Your task to perform on an android device: Search for seafood restaurants on Google Maps Image 0: 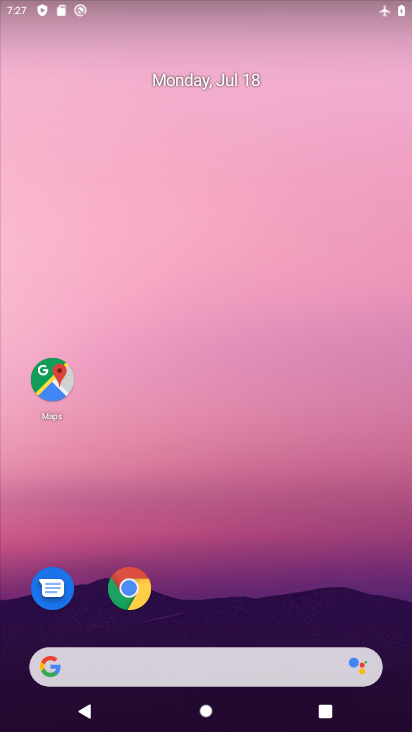
Step 0: click (46, 377)
Your task to perform on an android device: Search for seafood restaurants on Google Maps Image 1: 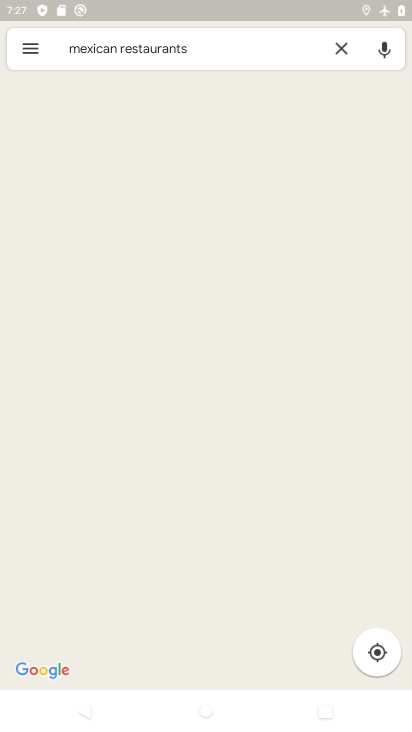
Step 1: click (340, 43)
Your task to perform on an android device: Search for seafood restaurants on Google Maps Image 2: 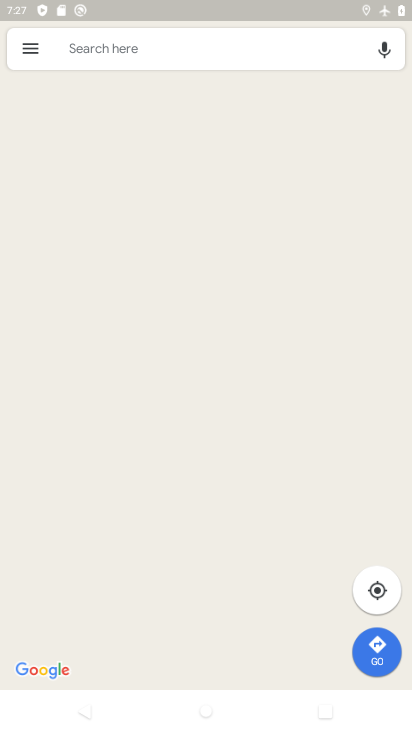
Step 2: click (178, 50)
Your task to perform on an android device: Search for seafood restaurants on Google Maps Image 3: 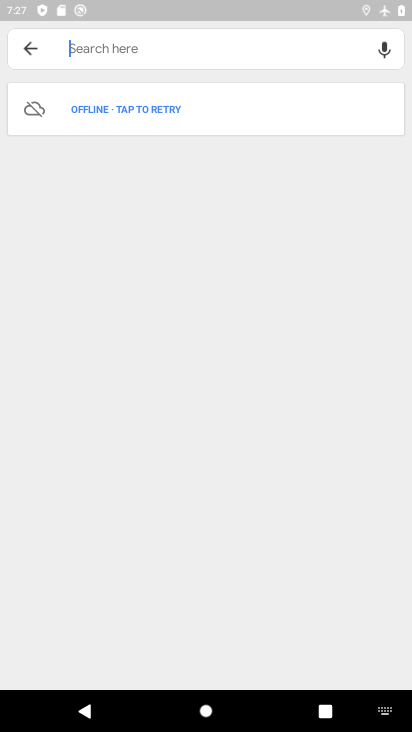
Step 3: type "seafood restaurants"
Your task to perform on an android device: Search for seafood restaurants on Google Maps Image 4: 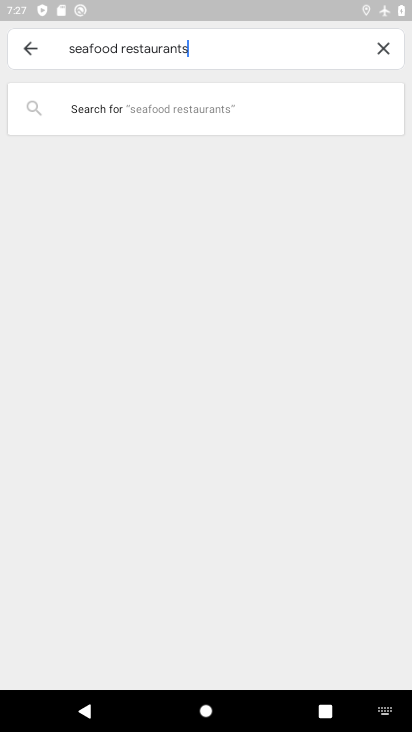
Step 4: click (174, 118)
Your task to perform on an android device: Search for seafood restaurants on Google Maps Image 5: 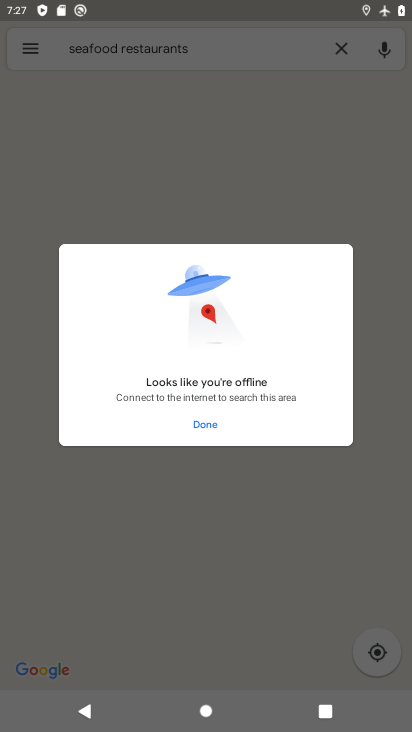
Step 5: click (211, 427)
Your task to perform on an android device: Search for seafood restaurants on Google Maps Image 6: 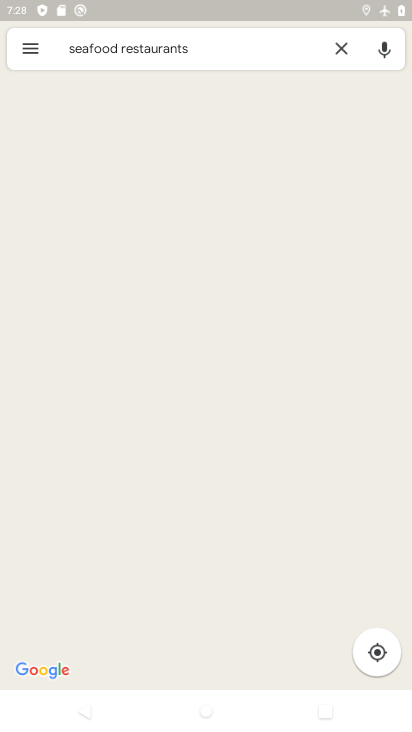
Step 6: task complete